Your task to perform on an android device: check the backup settings in the google photos Image 0: 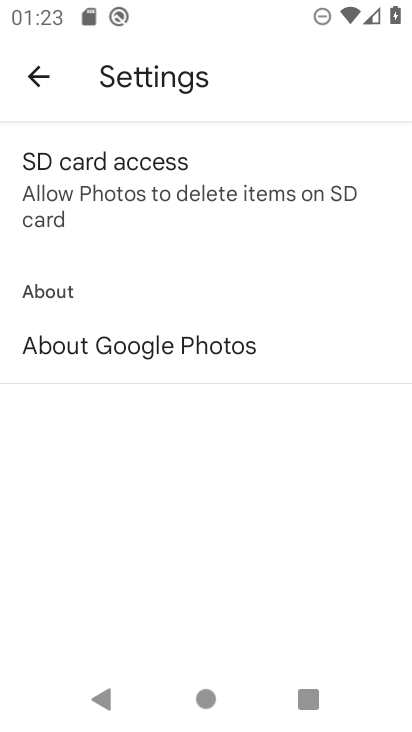
Step 0: press home button
Your task to perform on an android device: check the backup settings in the google photos Image 1: 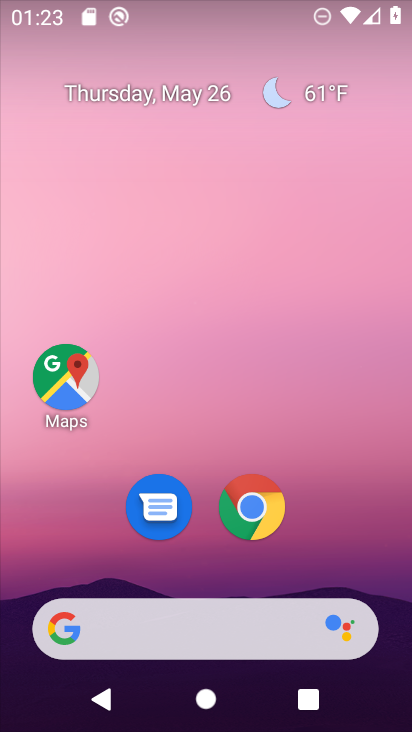
Step 1: drag from (370, 532) to (355, 205)
Your task to perform on an android device: check the backup settings in the google photos Image 2: 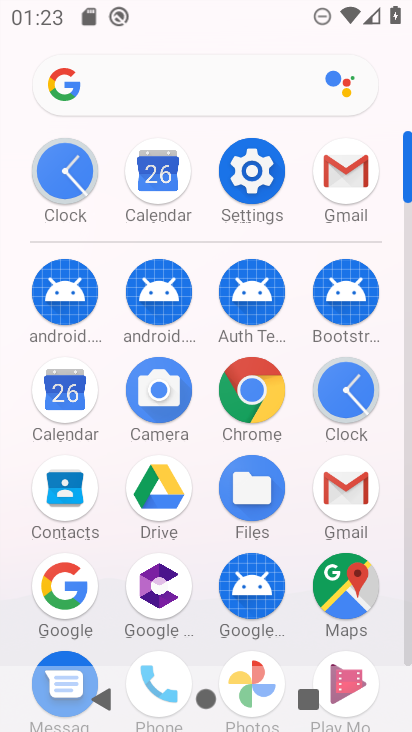
Step 2: click (241, 653)
Your task to perform on an android device: check the backup settings in the google photos Image 3: 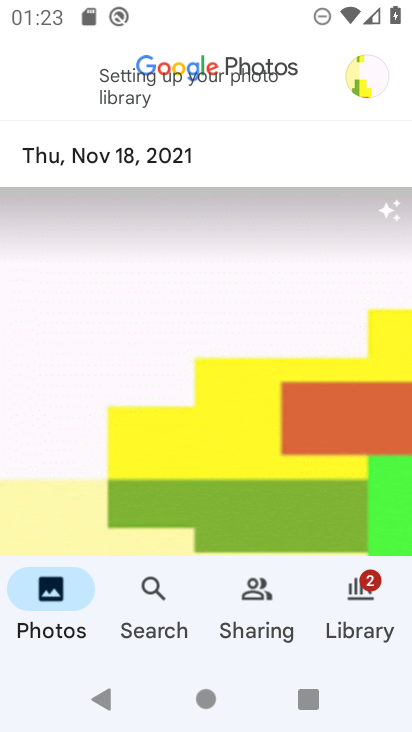
Step 3: click (338, 590)
Your task to perform on an android device: check the backup settings in the google photos Image 4: 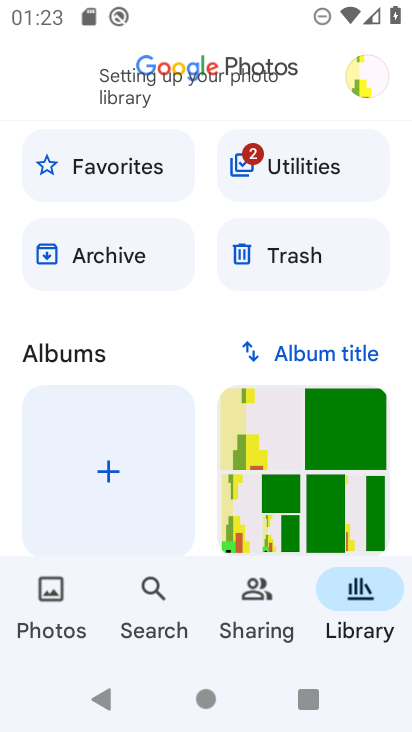
Step 4: click (360, 84)
Your task to perform on an android device: check the backup settings in the google photos Image 5: 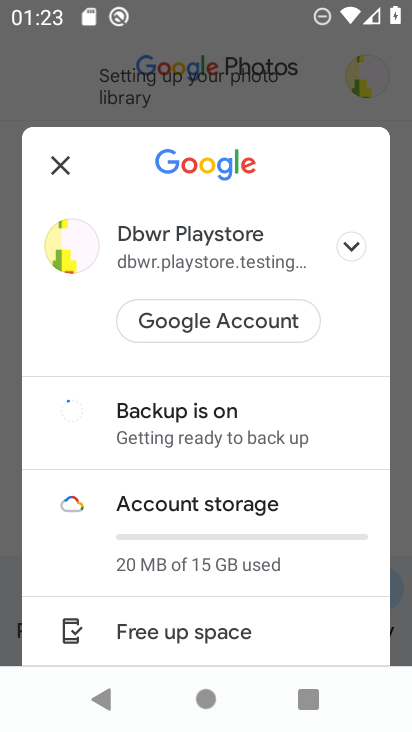
Step 5: click (203, 451)
Your task to perform on an android device: check the backup settings in the google photos Image 6: 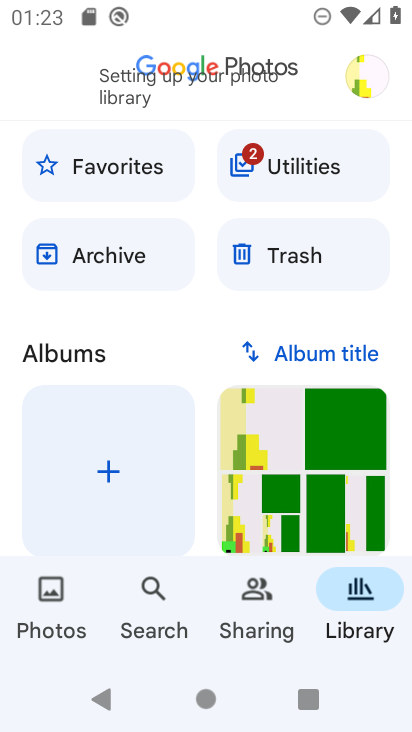
Step 6: task complete